Your task to perform on an android device: toggle priority inbox in the gmail app Image 0: 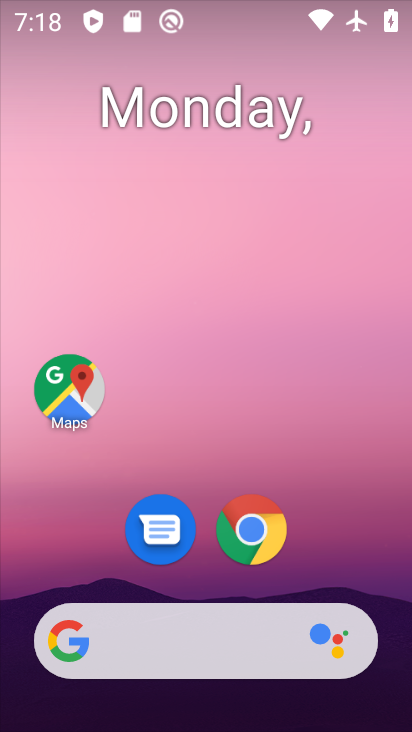
Step 0: drag from (333, 499) to (257, 1)
Your task to perform on an android device: toggle priority inbox in the gmail app Image 1: 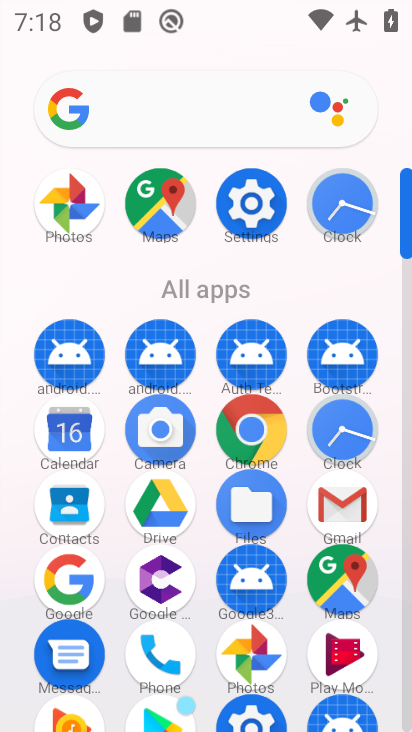
Step 1: click (340, 497)
Your task to perform on an android device: toggle priority inbox in the gmail app Image 2: 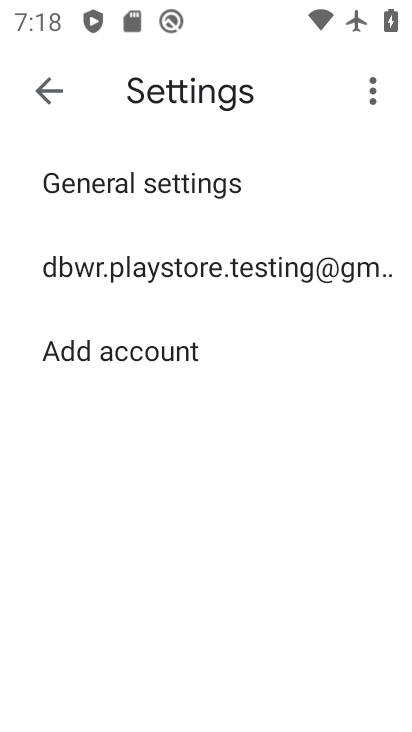
Step 2: click (139, 271)
Your task to perform on an android device: toggle priority inbox in the gmail app Image 3: 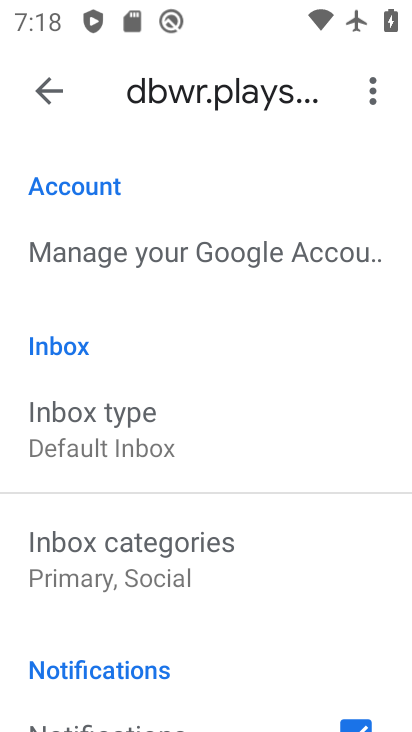
Step 3: click (114, 411)
Your task to perform on an android device: toggle priority inbox in the gmail app Image 4: 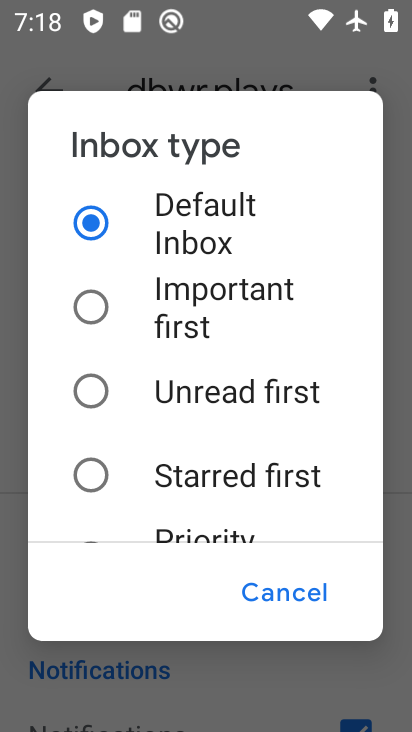
Step 4: drag from (116, 458) to (112, 183)
Your task to perform on an android device: toggle priority inbox in the gmail app Image 5: 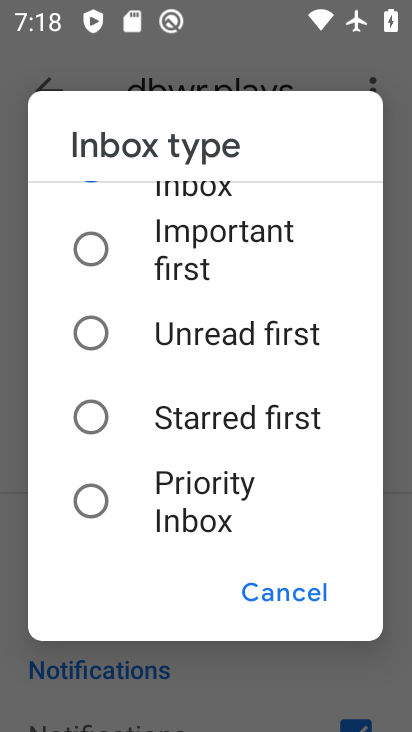
Step 5: click (87, 498)
Your task to perform on an android device: toggle priority inbox in the gmail app Image 6: 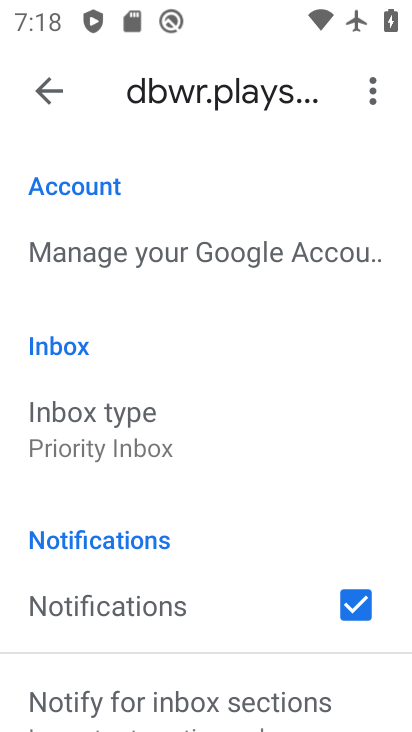
Step 6: task complete